Your task to perform on an android device: Go to internet settings Image 0: 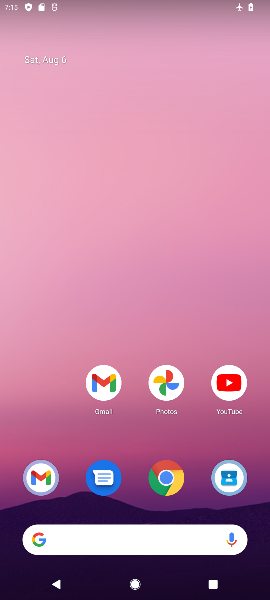
Step 0: press home button
Your task to perform on an android device: Go to internet settings Image 1: 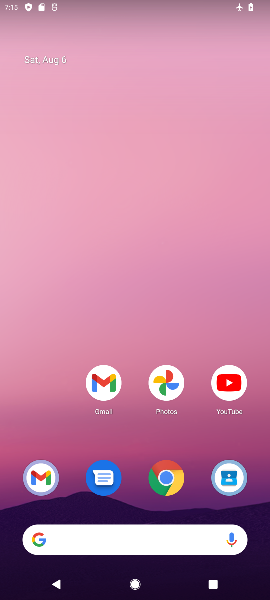
Step 1: drag from (54, 411) to (76, 6)
Your task to perform on an android device: Go to internet settings Image 2: 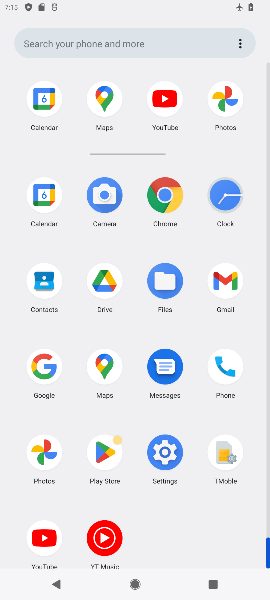
Step 2: click (154, 462)
Your task to perform on an android device: Go to internet settings Image 3: 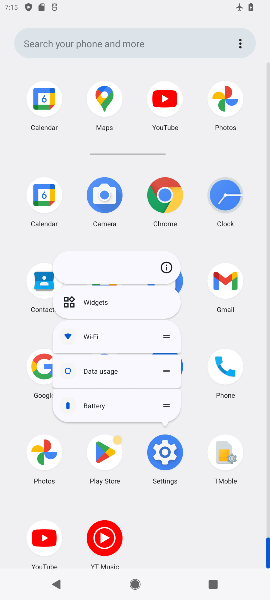
Step 3: click (170, 451)
Your task to perform on an android device: Go to internet settings Image 4: 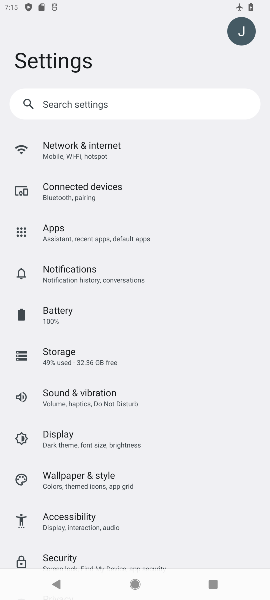
Step 4: click (65, 142)
Your task to perform on an android device: Go to internet settings Image 5: 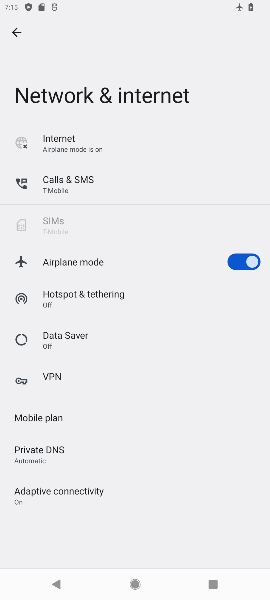
Step 5: click (68, 142)
Your task to perform on an android device: Go to internet settings Image 6: 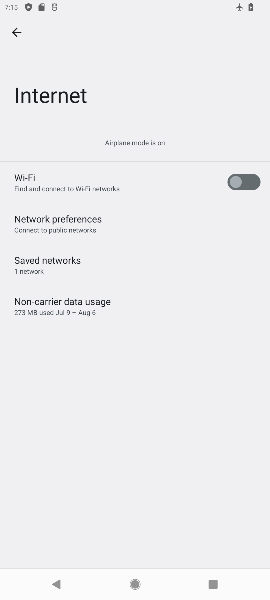
Step 6: task complete